Your task to perform on an android device: Open Google Maps Image 0: 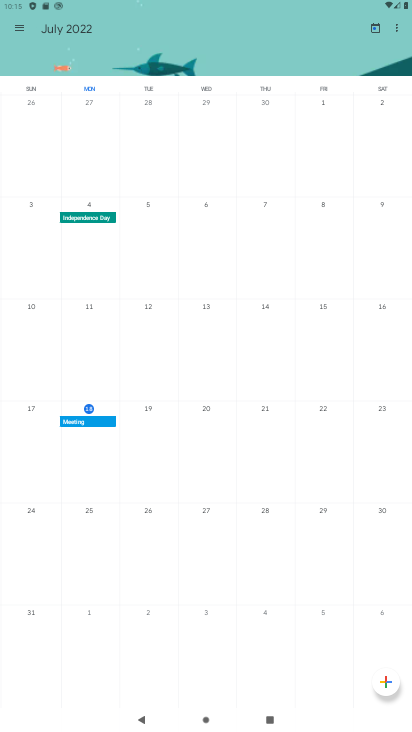
Step 0: press home button
Your task to perform on an android device: Open Google Maps Image 1: 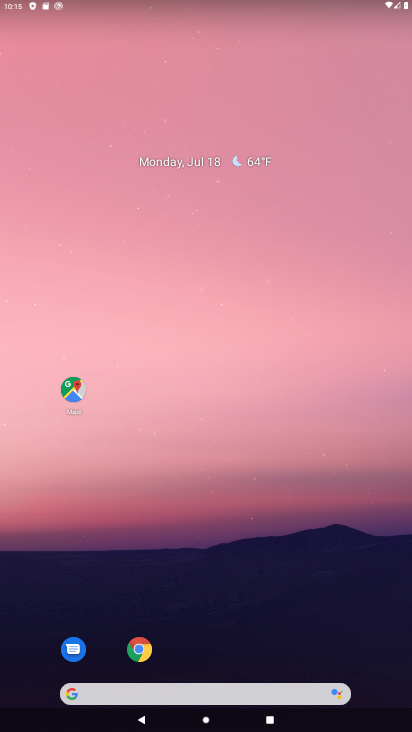
Step 1: drag from (250, 617) to (275, 83)
Your task to perform on an android device: Open Google Maps Image 2: 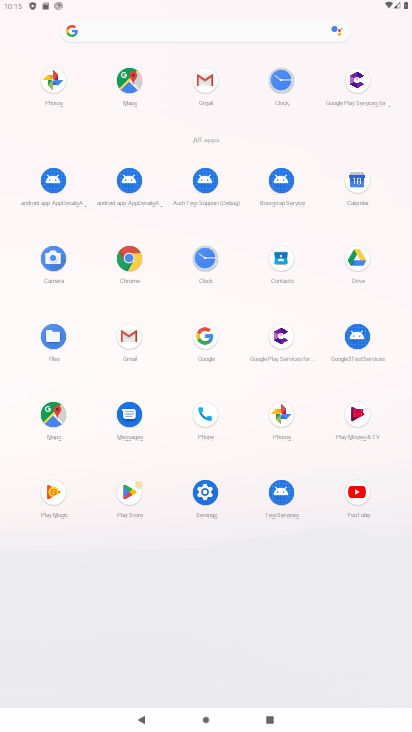
Step 2: click (46, 417)
Your task to perform on an android device: Open Google Maps Image 3: 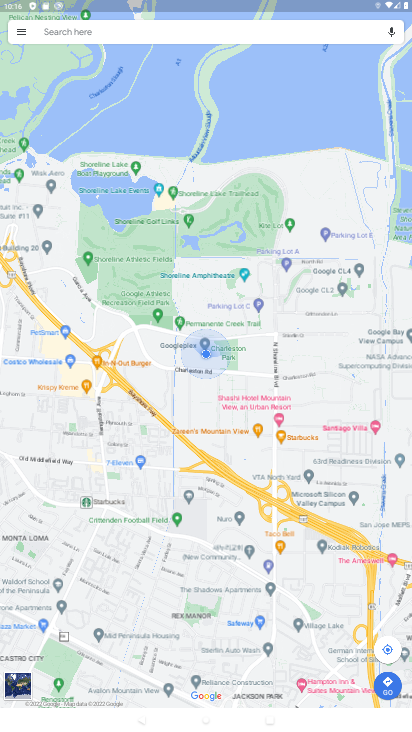
Step 3: task complete